Your task to perform on an android device: Go to battery settings Image 0: 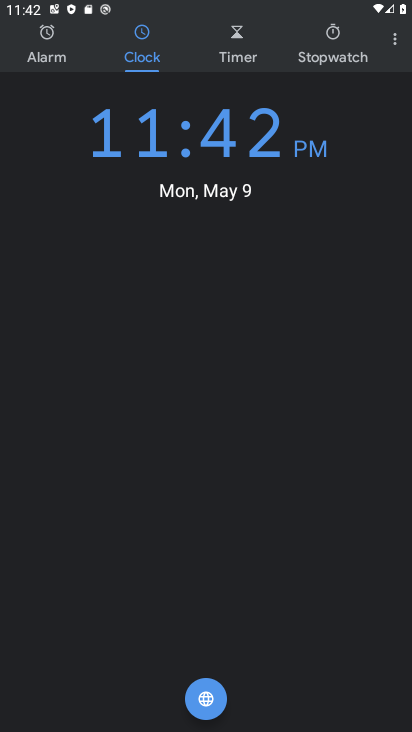
Step 0: press home button
Your task to perform on an android device: Go to battery settings Image 1: 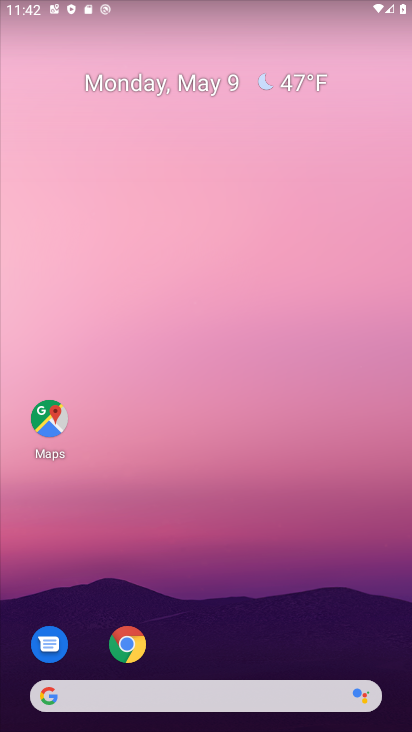
Step 1: drag from (5, 680) to (258, 54)
Your task to perform on an android device: Go to battery settings Image 2: 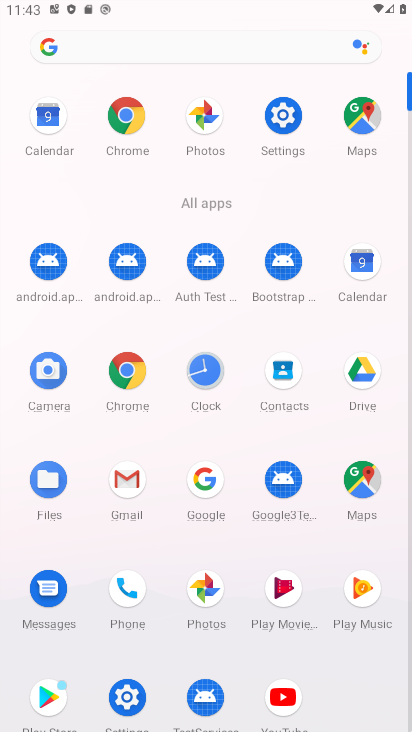
Step 2: click (272, 123)
Your task to perform on an android device: Go to battery settings Image 3: 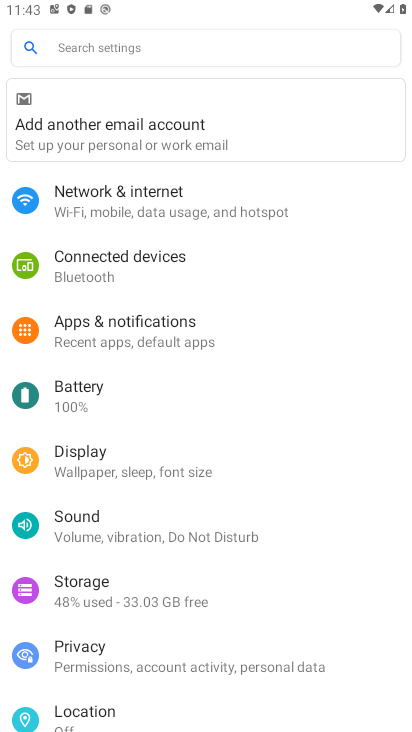
Step 3: click (89, 393)
Your task to perform on an android device: Go to battery settings Image 4: 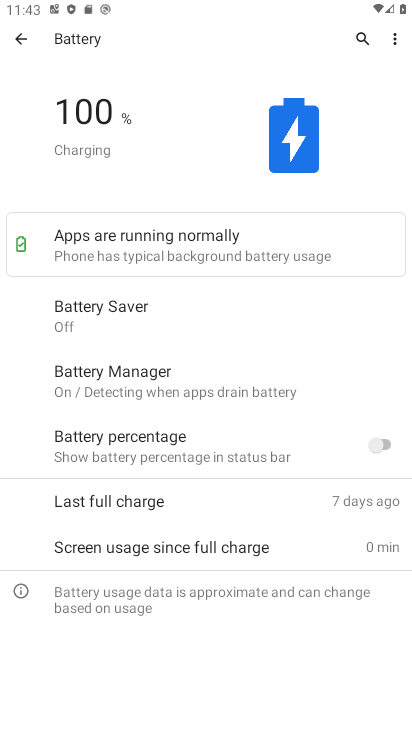
Step 4: task complete